Your task to perform on an android device: see tabs open on other devices in the chrome app Image 0: 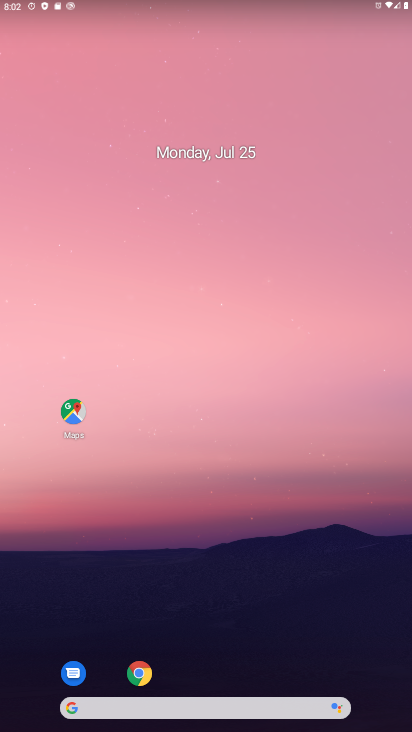
Step 0: drag from (334, 654) to (173, 103)
Your task to perform on an android device: see tabs open on other devices in the chrome app Image 1: 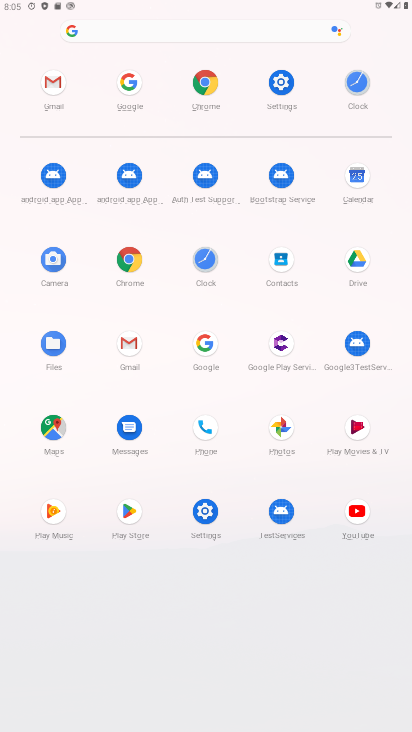
Step 1: click (134, 253)
Your task to perform on an android device: see tabs open on other devices in the chrome app Image 2: 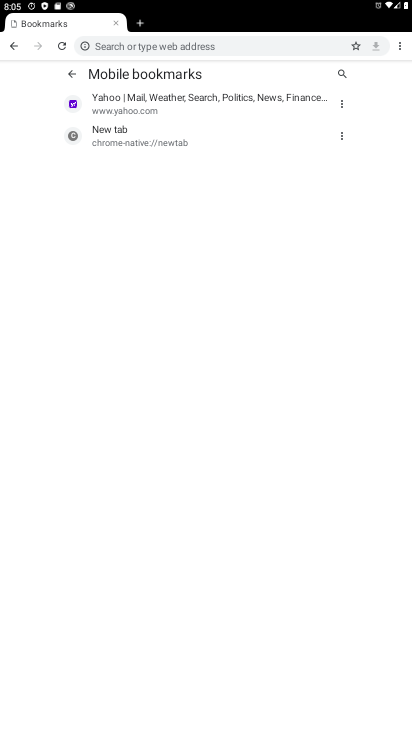
Step 2: task complete